Your task to perform on an android device: toggle wifi Image 0: 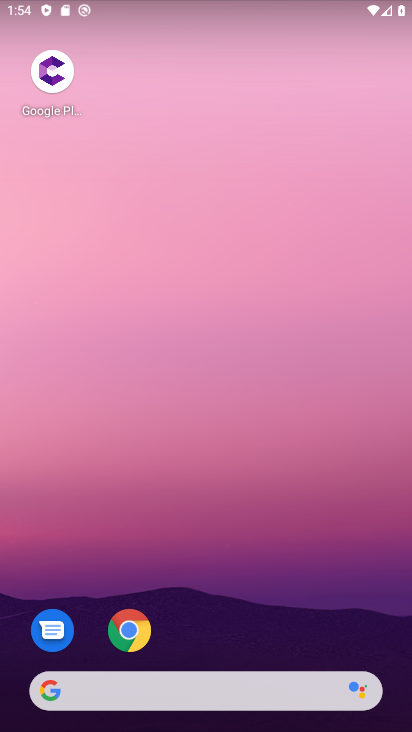
Step 0: drag from (237, 600) to (192, 170)
Your task to perform on an android device: toggle wifi Image 1: 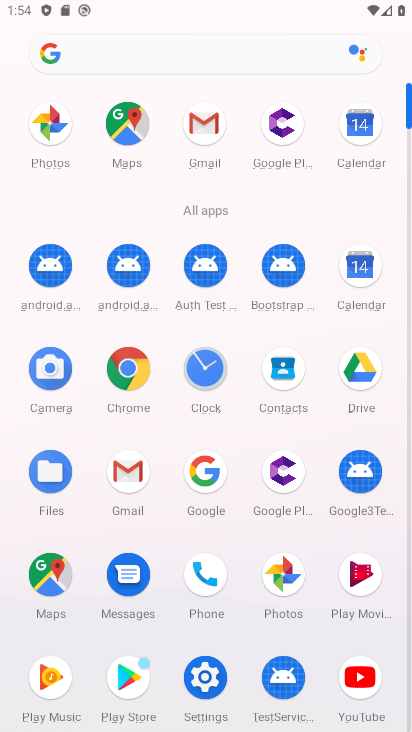
Step 1: drag from (206, 675) to (220, 217)
Your task to perform on an android device: toggle wifi Image 2: 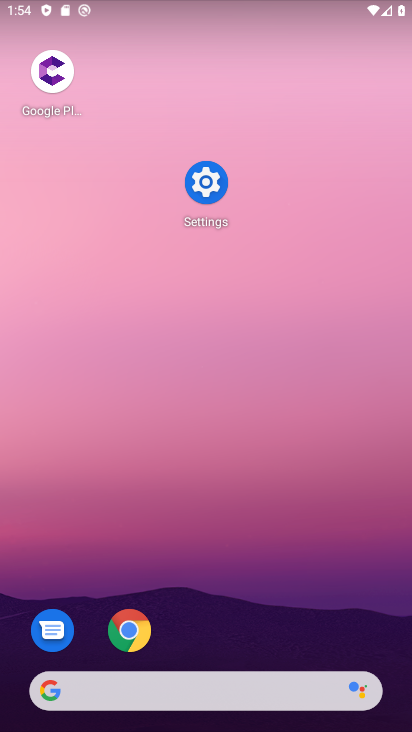
Step 2: click (204, 185)
Your task to perform on an android device: toggle wifi Image 3: 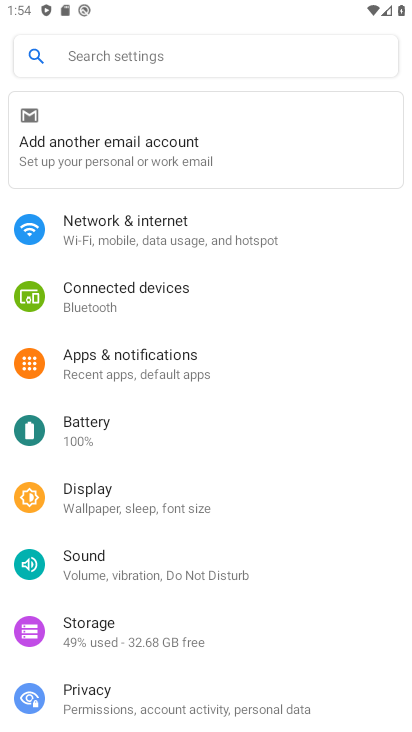
Step 3: click (188, 217)
Your task to perform on an android device: toggle wifi Image 4: 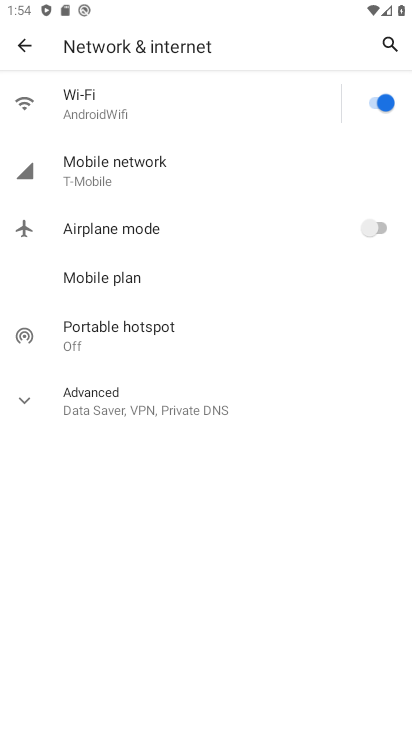
Step 4: click (181, 111)
Your task to perform on an android device: toggle wifi Image 5: 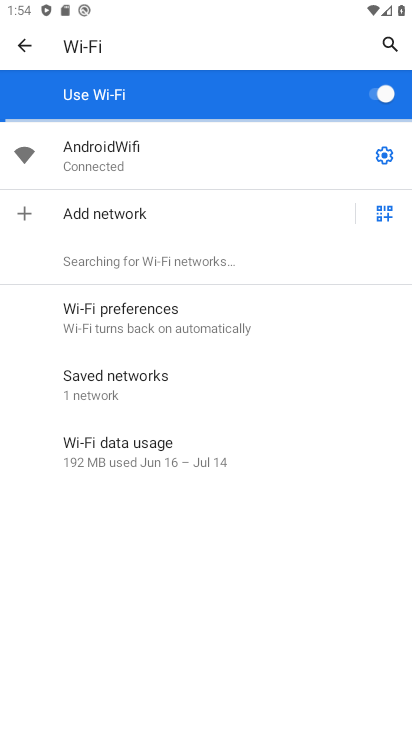
Step 5: click (388, 151)
Your task to perform on an android device: toggle wifi Image 6: 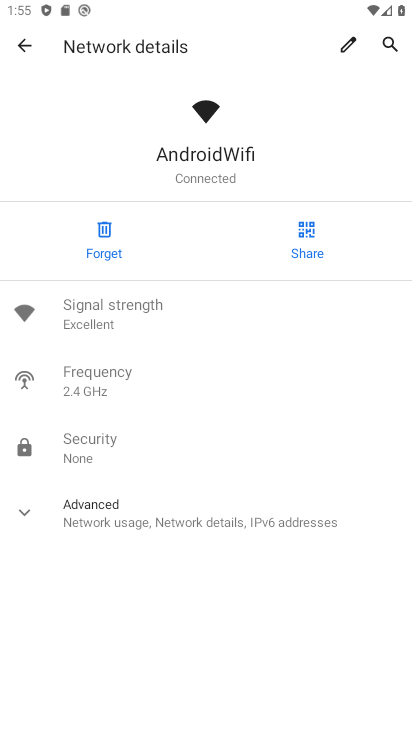
Step 6: task complete